Your task to perform on an android device: Clear all items from cart on target.com. Add "macbook pro 15 inch" to the cart on target.com Image 0: 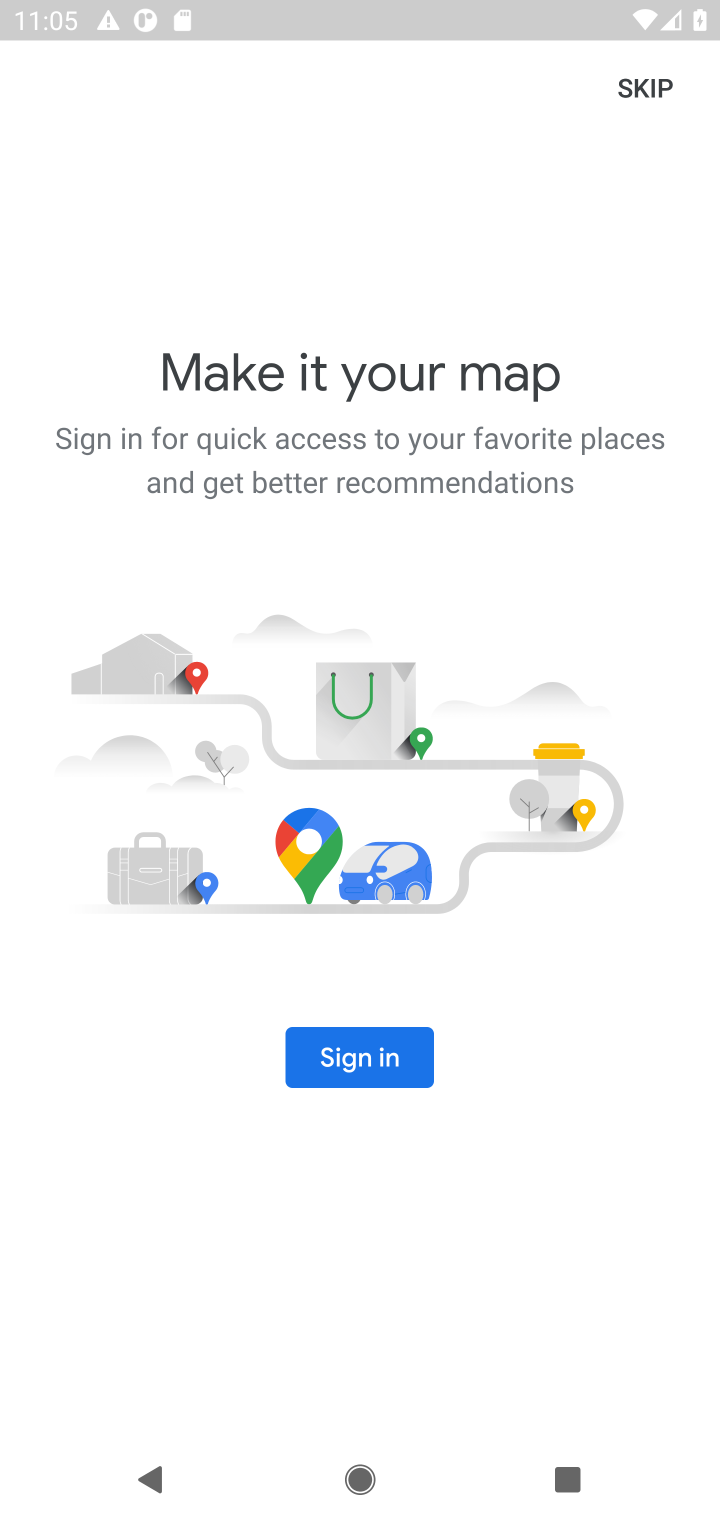
Step 0: press home button
Your task to perform on an android device: Clear all items from cart on target.com. Add "macbook pro 15 inch" to the cart on target.com Image 1: 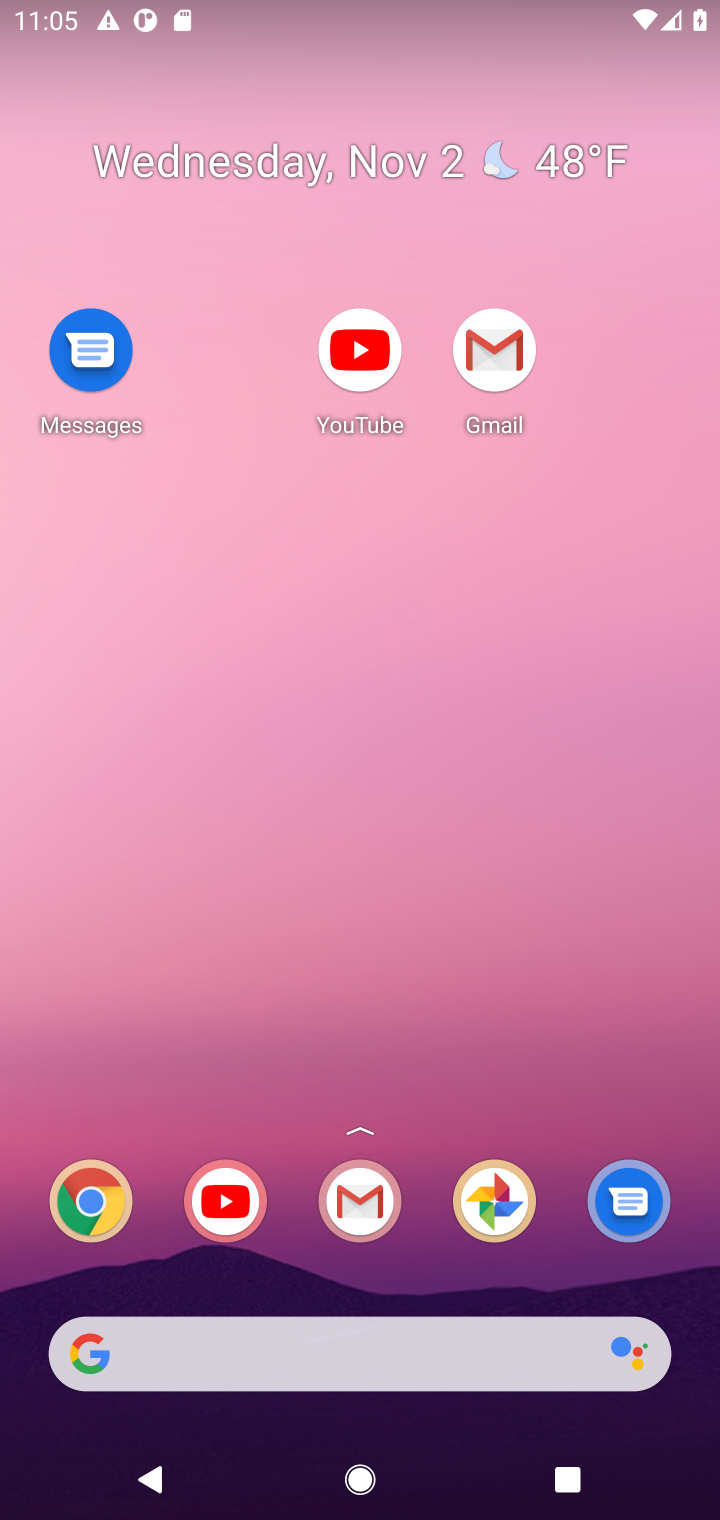
Step 1: drag from (358, 802) to (371, 134)
Your task to perform on an android device: Clear all items from cart on target.com. Add "macbook pro 15 inch" to the cart on target.com Image 2: 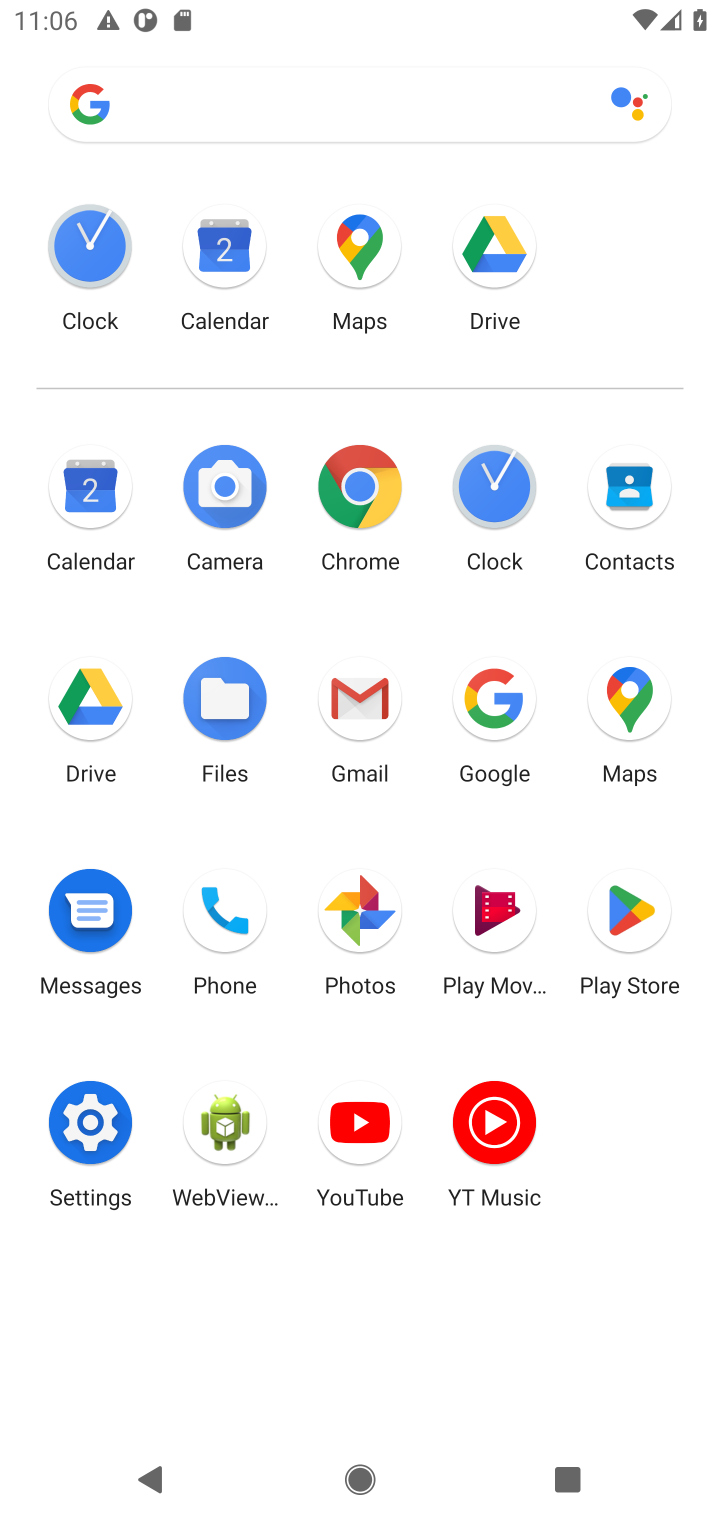
Step 2: click (368, 493)
Your task to perform on an android device: Clear all items from cart on target.com. Add "macbook pro 15 inch" to the cart on target.com Image 3: 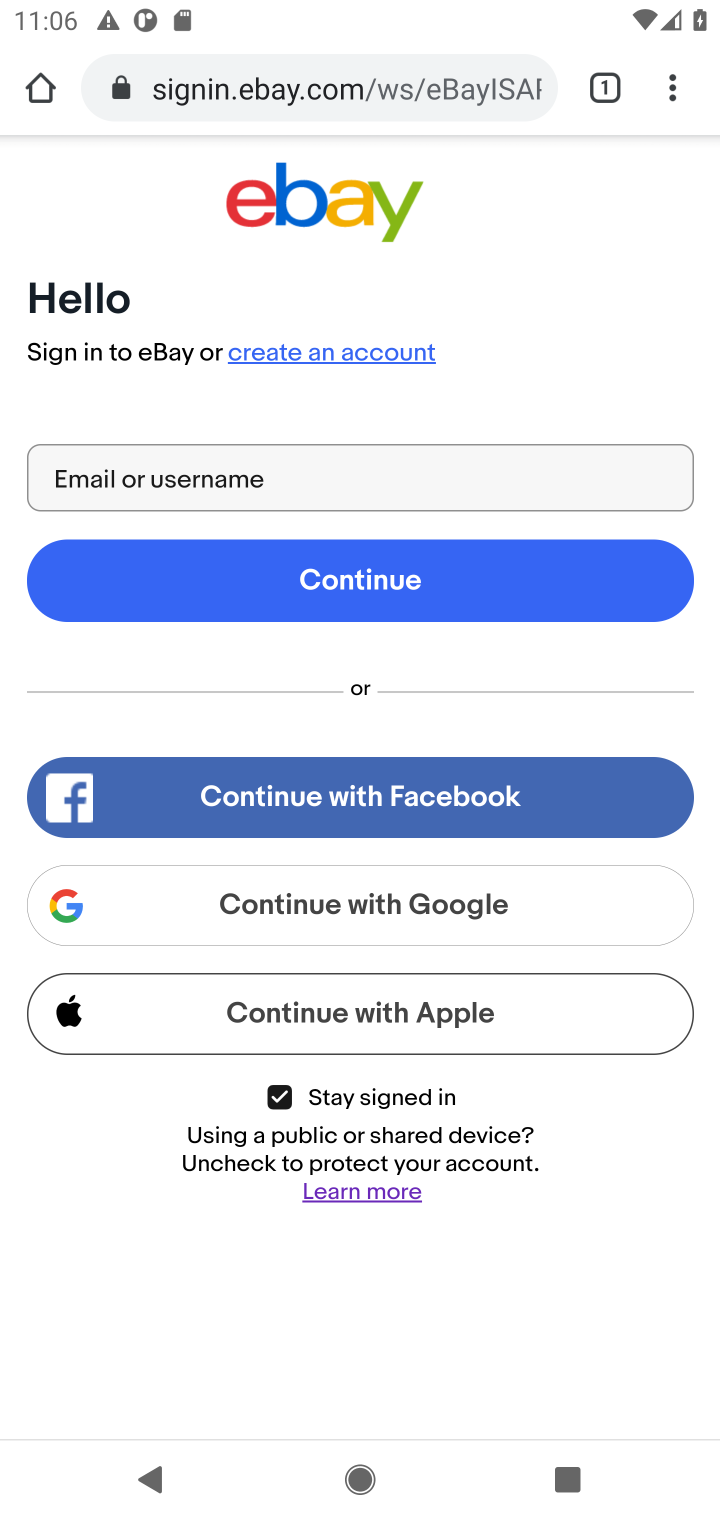
Step 3: click (397, 112)
Your task to perform on an android device: Clear all items from cart on target.com. Add "macbook pro 15 inch" to the cart on target.com Image 4: 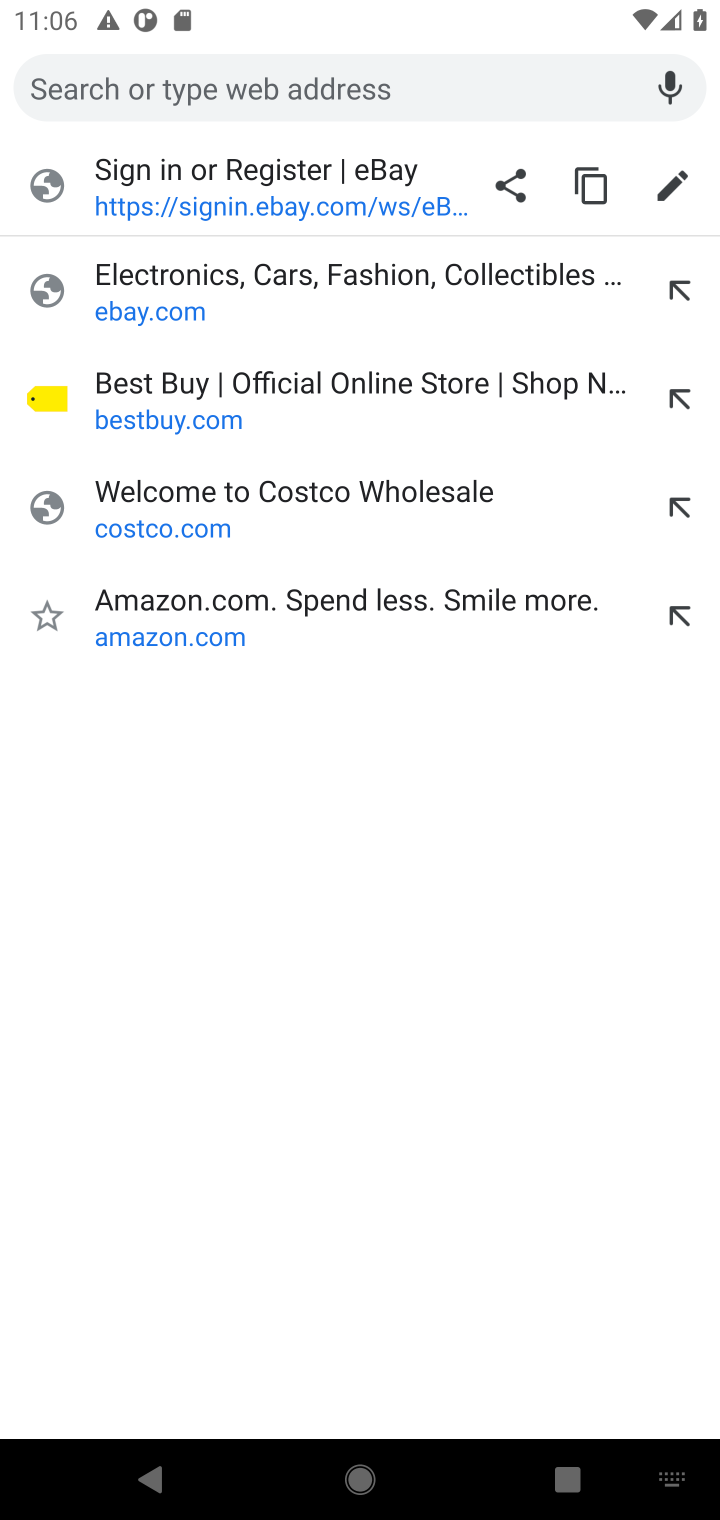
Step 4: type "target.com"
Your task to perform on an android device: Clear all items from cart on target.com. Add "macbook pro 15 inch" to the cart on target.com Image 5: 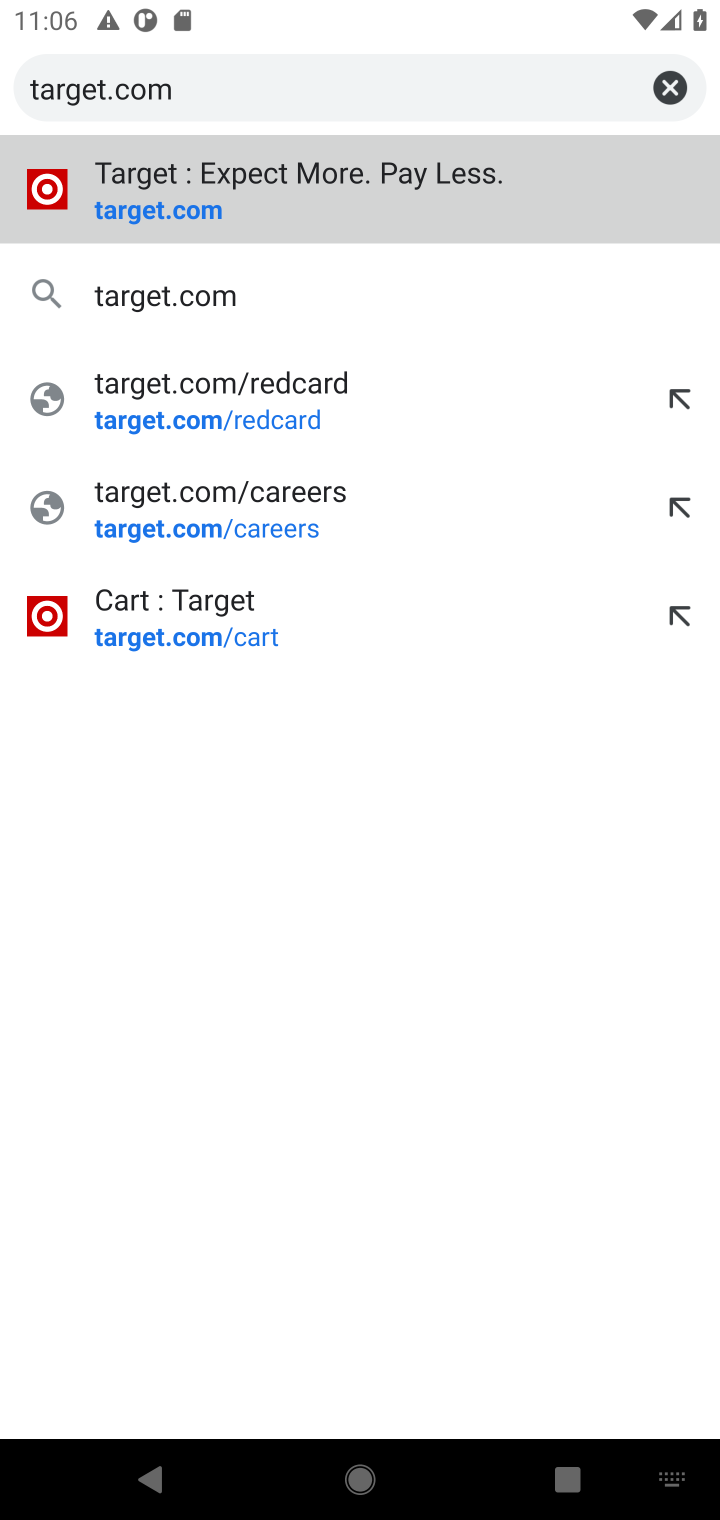
Step 5: press enter
Your task to perform on an android device: Clear all items from cart on target.com. Add "macbook pro 15 inch" to the cart on target.com Image 6: 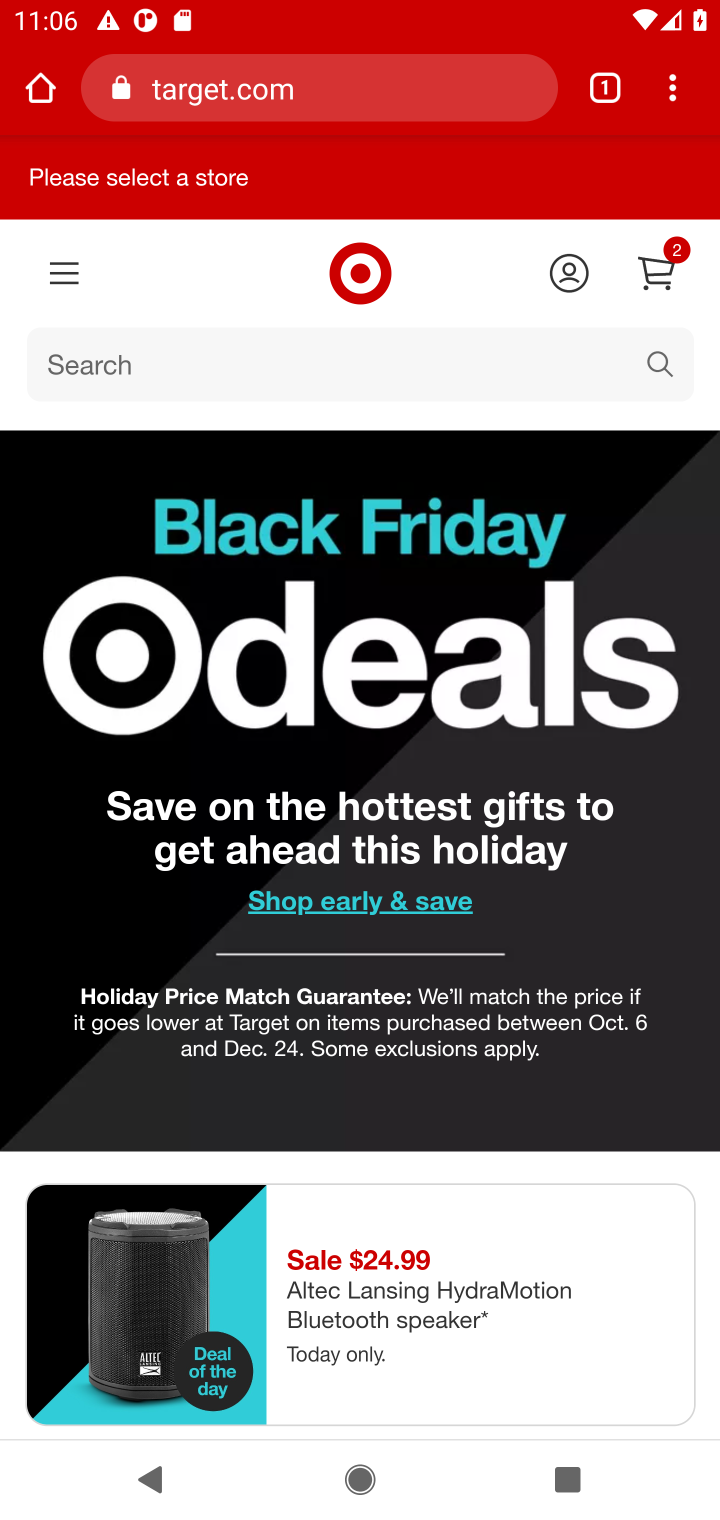
Step 6: click (662, 276)
Your task to perform on an android device: Clear all items from cart on target.com. Add "macbook pro 15 inch" to the cart on target.com Image 7: 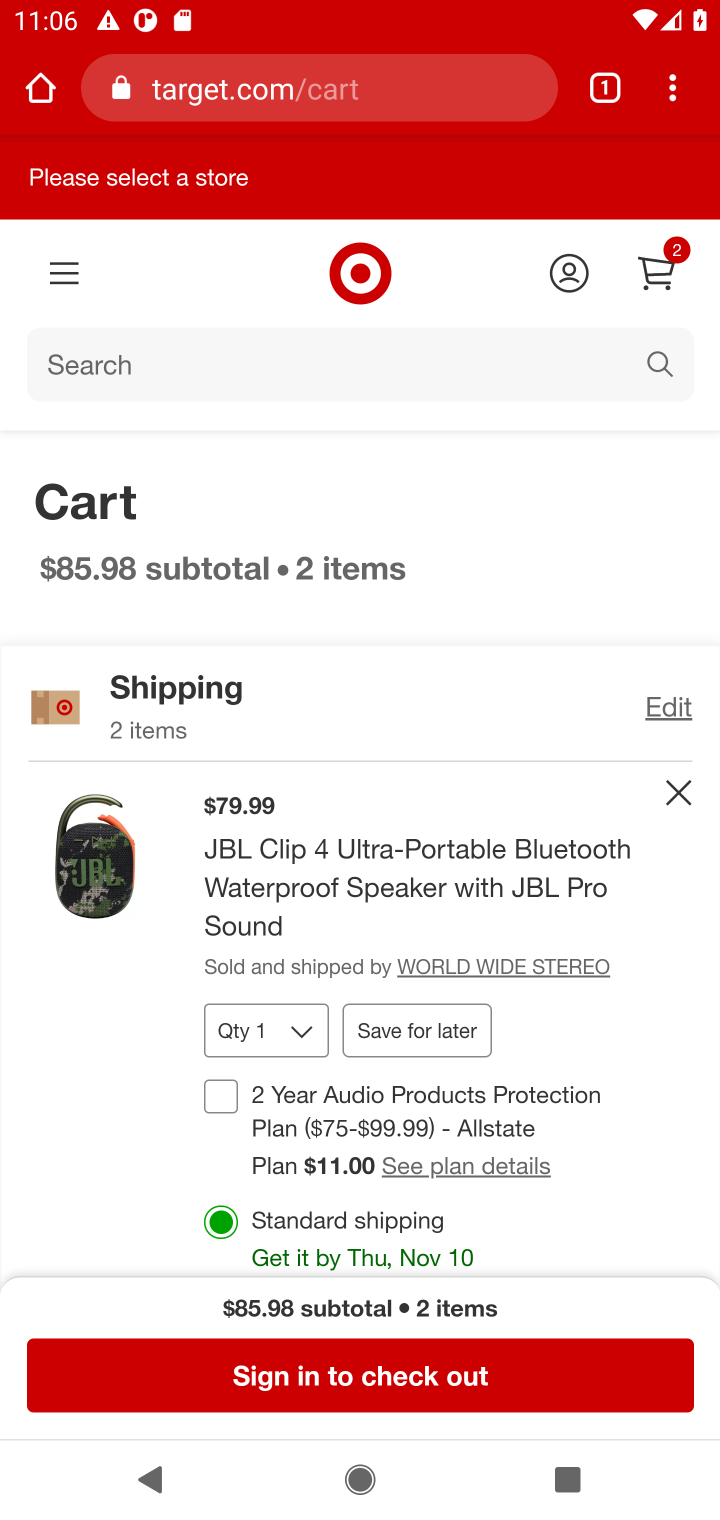
Step 7: drag from (460, 1238) to (564, 625)
Your task to perform on an android device: Clear all items from cart on target.com. Add "macbook pro 15 inch" to the cart on target.com Image 8: 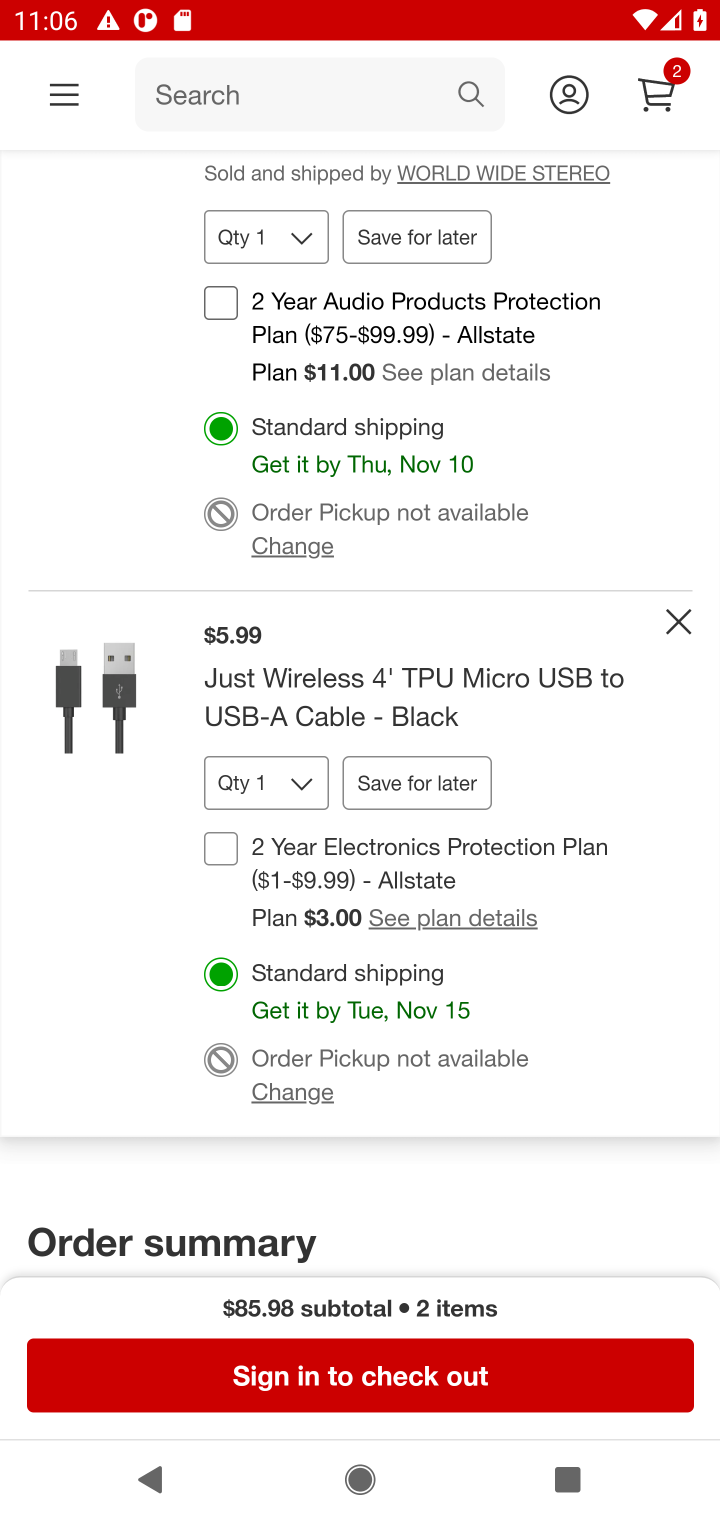
Step 8: click (676, 625)
Your task to perform on an android device: Clear all items from cart on target.com. Add "macbook pro 15 inch" to the cart on target.com Image 9: 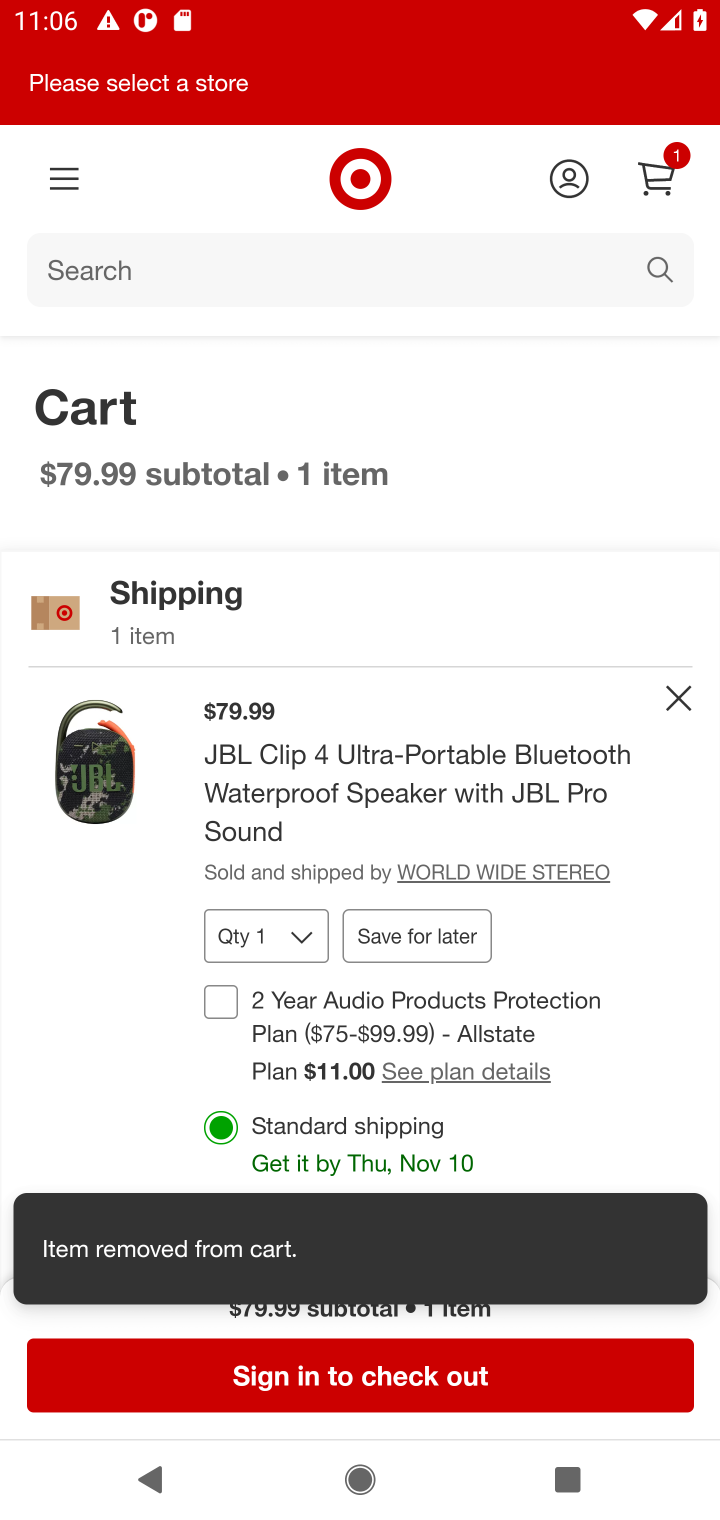
Step 9: click (682, 696)
Your task to perform on an android device: Clear all items from cart on target.com. Add "macbook pro 15 inch" to the cart on target.com Image 10: 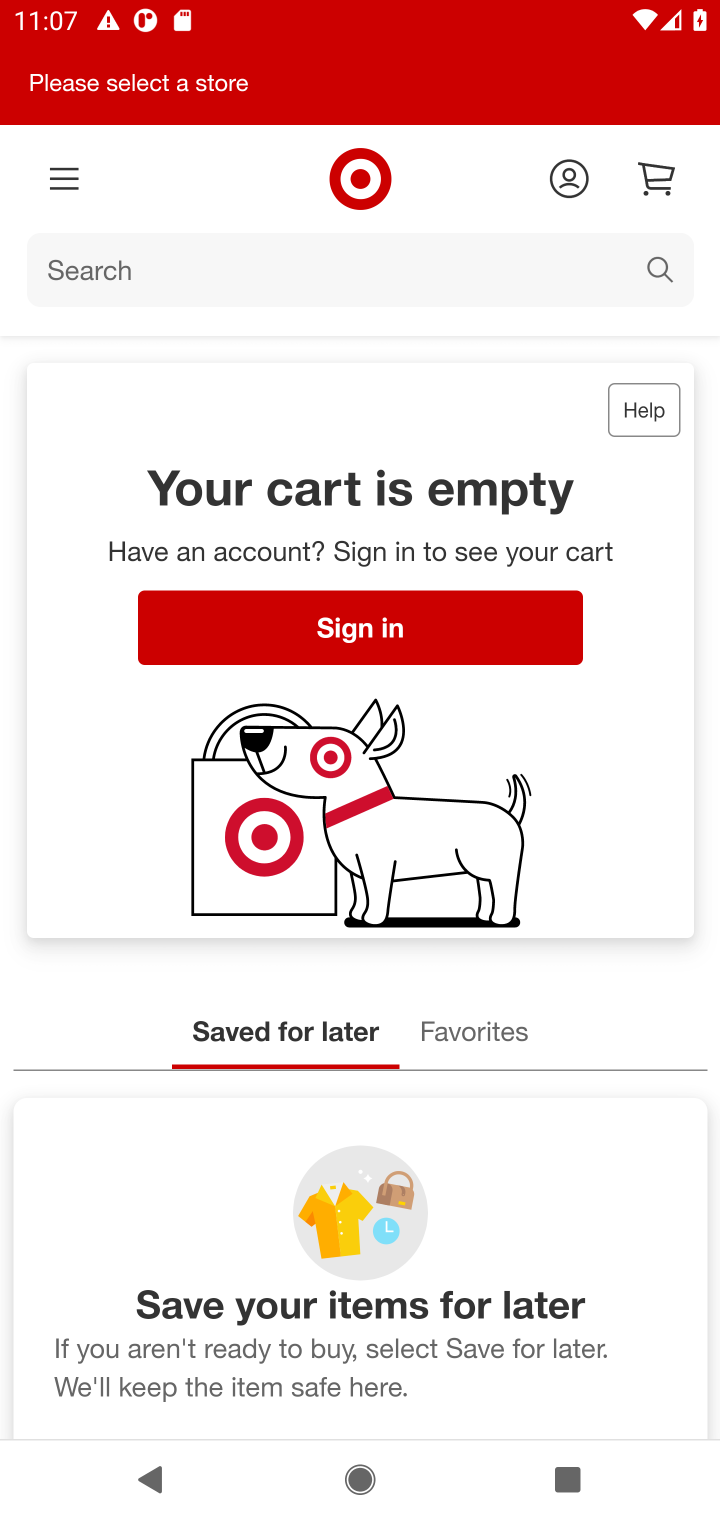
Step 10: click (505, 299)
Your task to perform on an android device: Clear all items from cart on target.com. Add "macbook pro 15 inch" to the cart on target.com Image 11: 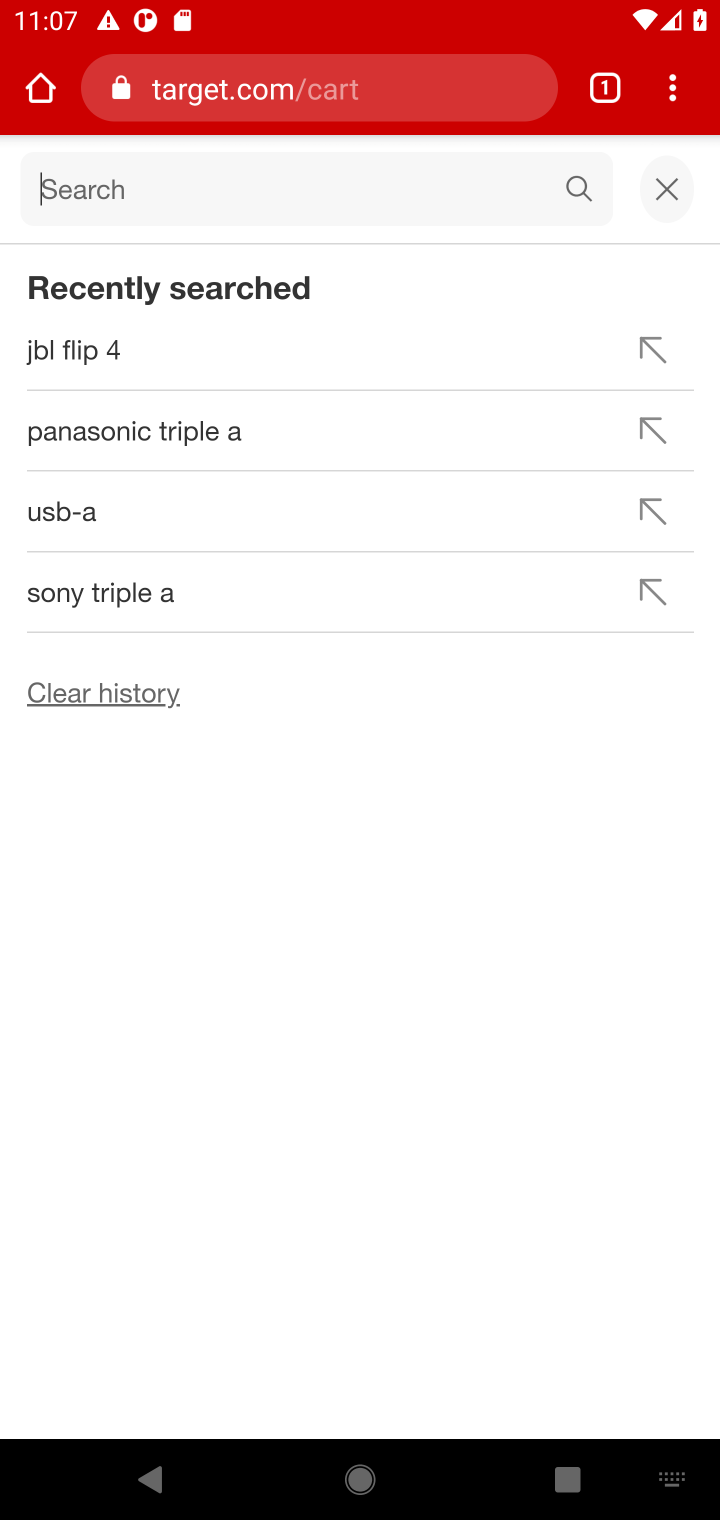
Step 11: type "macbook pro 15 inch"
Your task to perform on an android device: Clear all items from cart on target.com. Add "macbook pro 15 inch" to the cart on target.com Image 12: 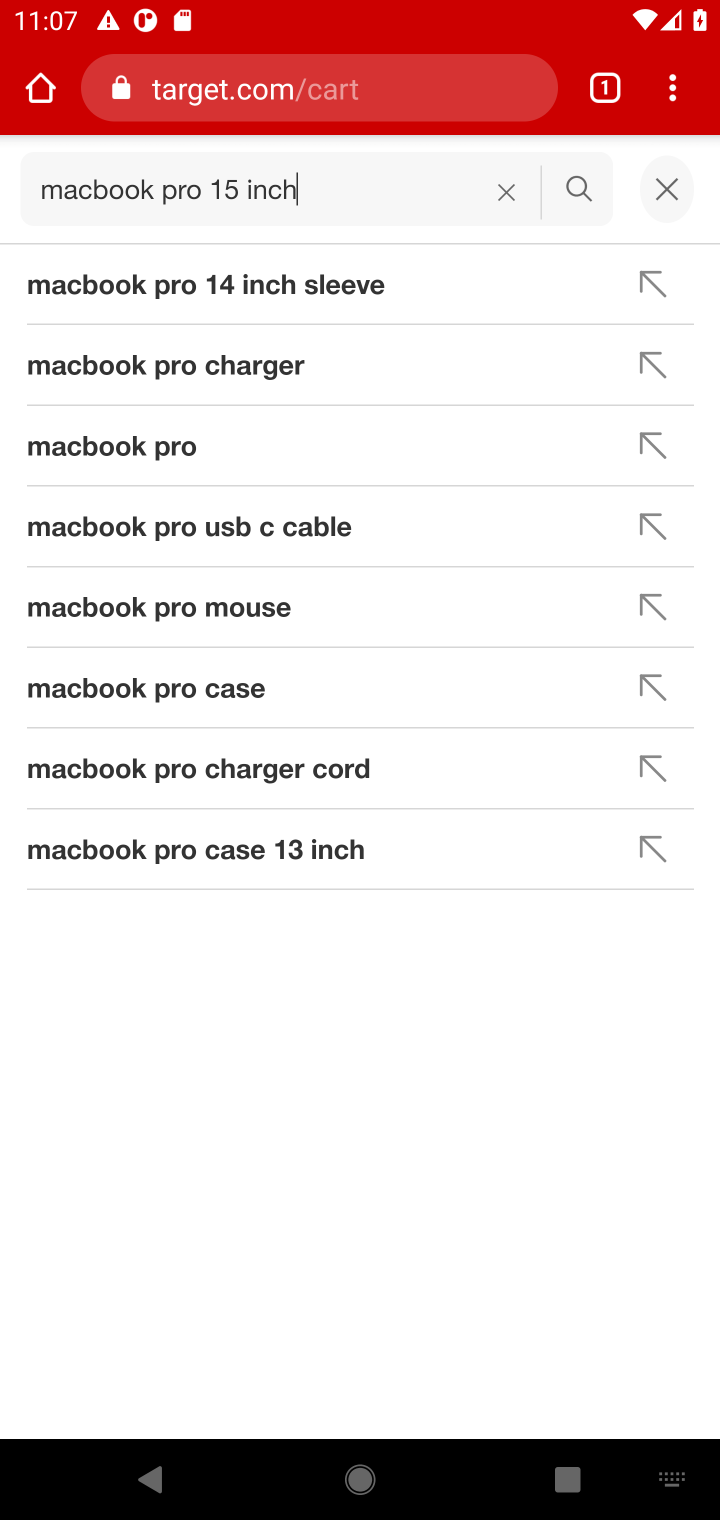
Step 12: press enter
Your task to perform on an android device: Clear all items from cart on target.com. Add "macbook pro 15 inch" to the cart on target.com Image 13: 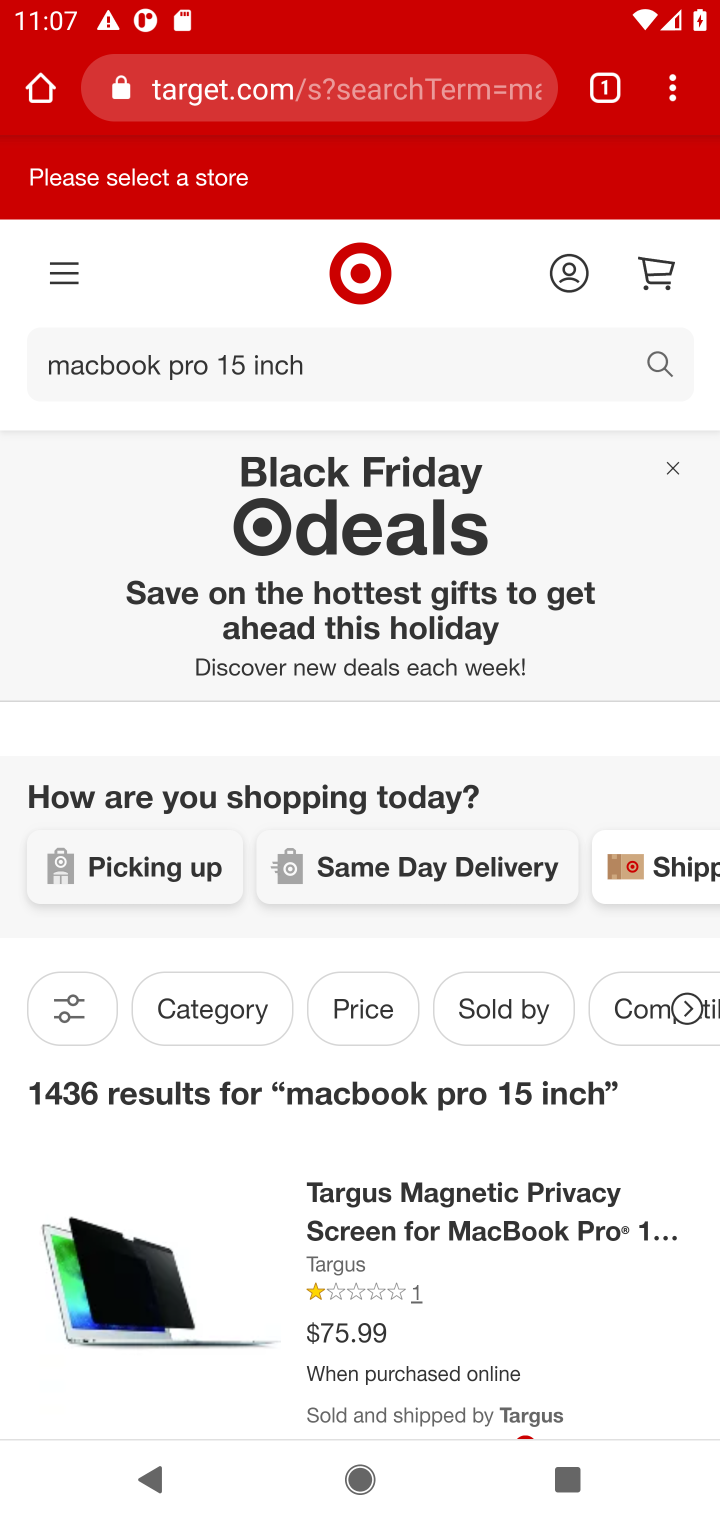
Step 13: drag from (481, 1333) to (420, 661)
Your task to perform on an android device: Clear all items from cart on target.com. Add "macbook pro 15 inch" to the cart on target.com Image 14: 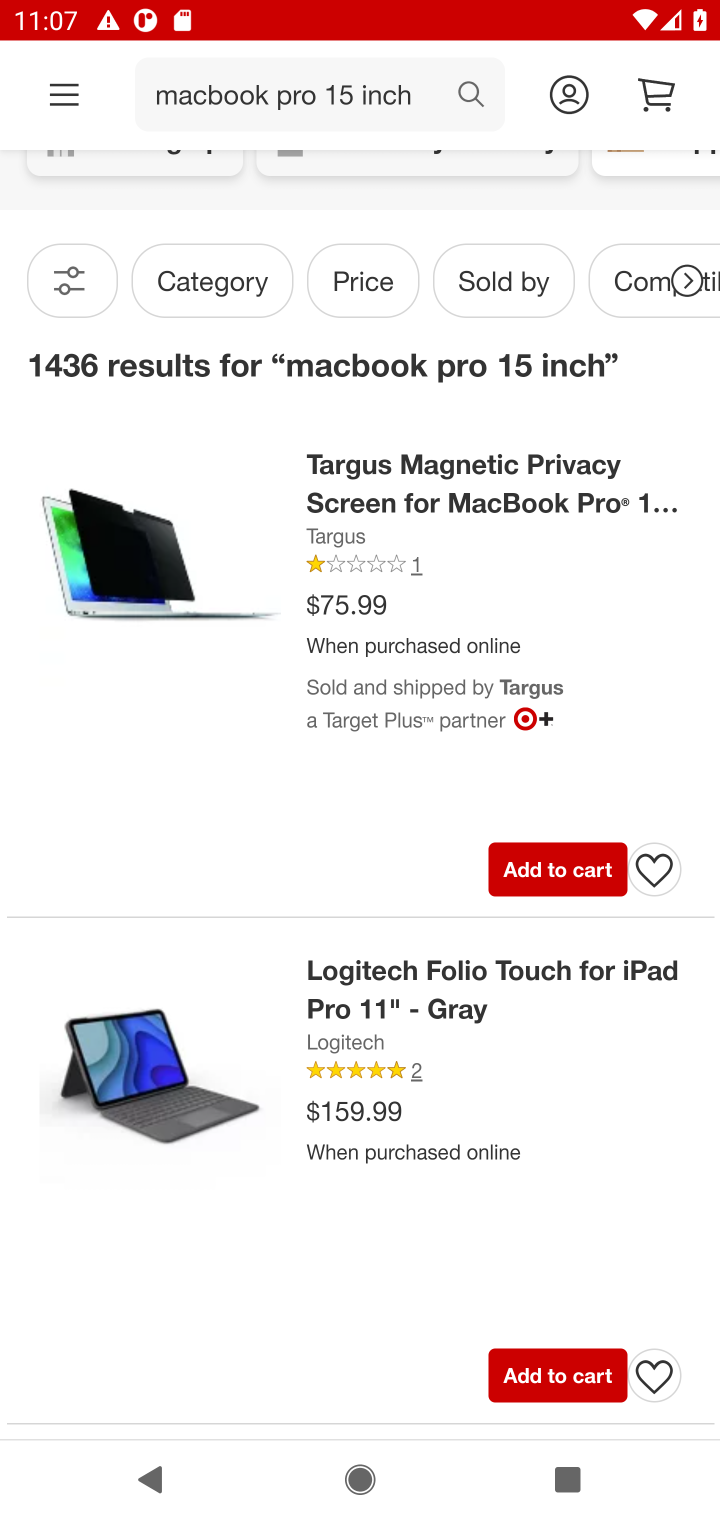
Step 14: click (422, 485)
Your task to perform on an android device: Clear all items from cart on target.com. Add "macbook pro 15 inch" to the cart on target.com Image 15: 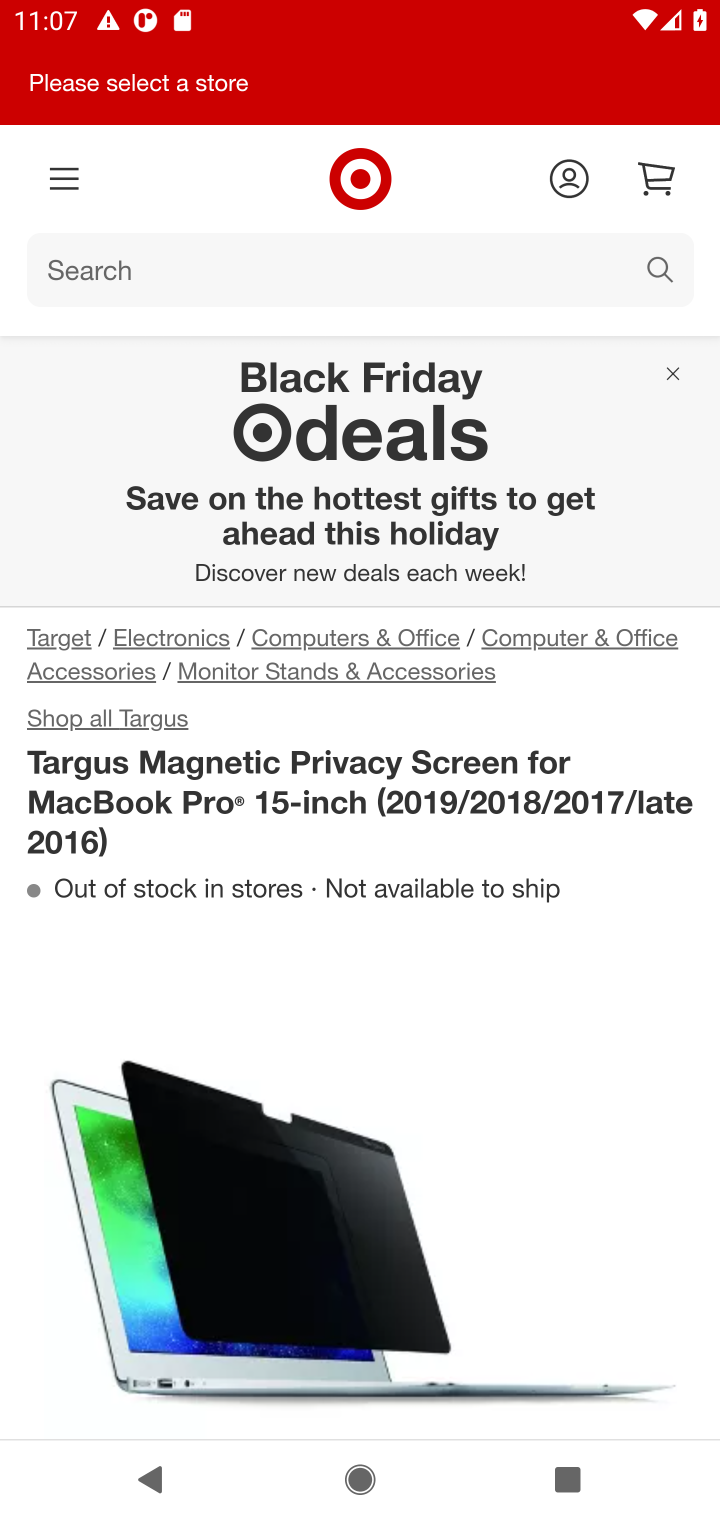
Step 15: drag from (441, 1110) to (494, 465)
Your task to perform on an android device: Clear all items from cart on target.com. Add "macbook pro 15 inch" to the cart on target.com Image 16: 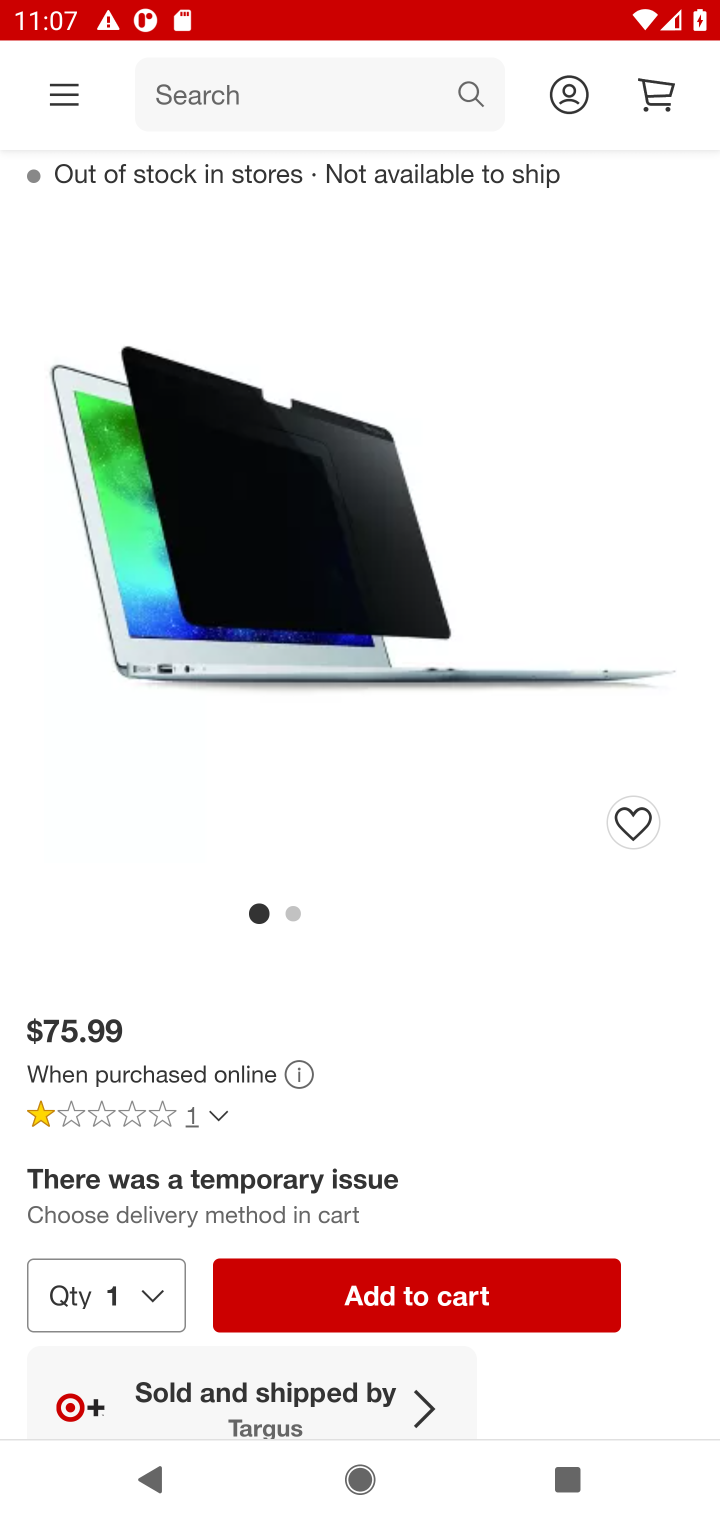
Step 16: click (477, 1292)
Your task to perform on an android device: Clear all items from cart on target.com. Add "macbook pro 15 inch" to the cart on target.com Image 17: 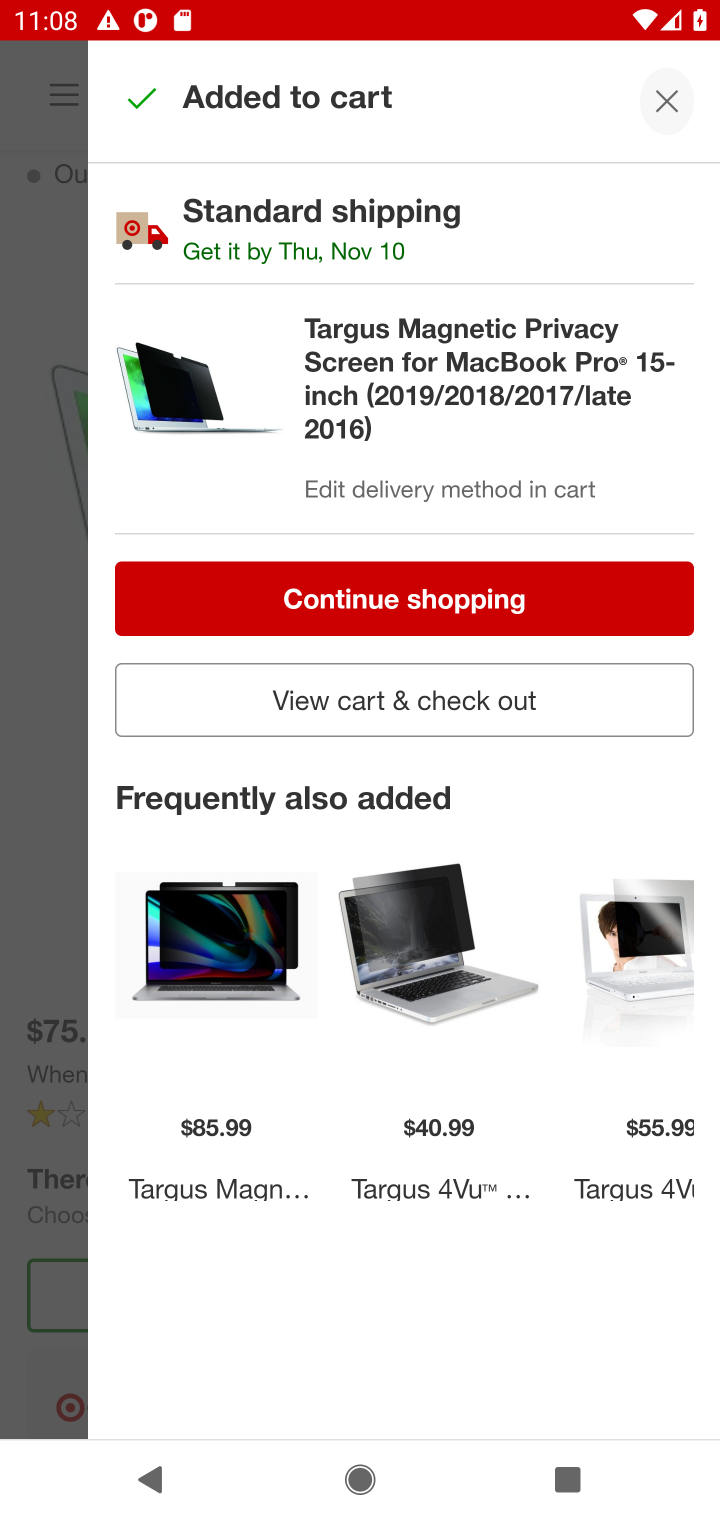
Step 17: task complete